Your task to perform on an android device: open app "LinkedIn" (install if not already installed) and enter user name: "dirt@inbox.com" and password: "receptionist" Image 0: 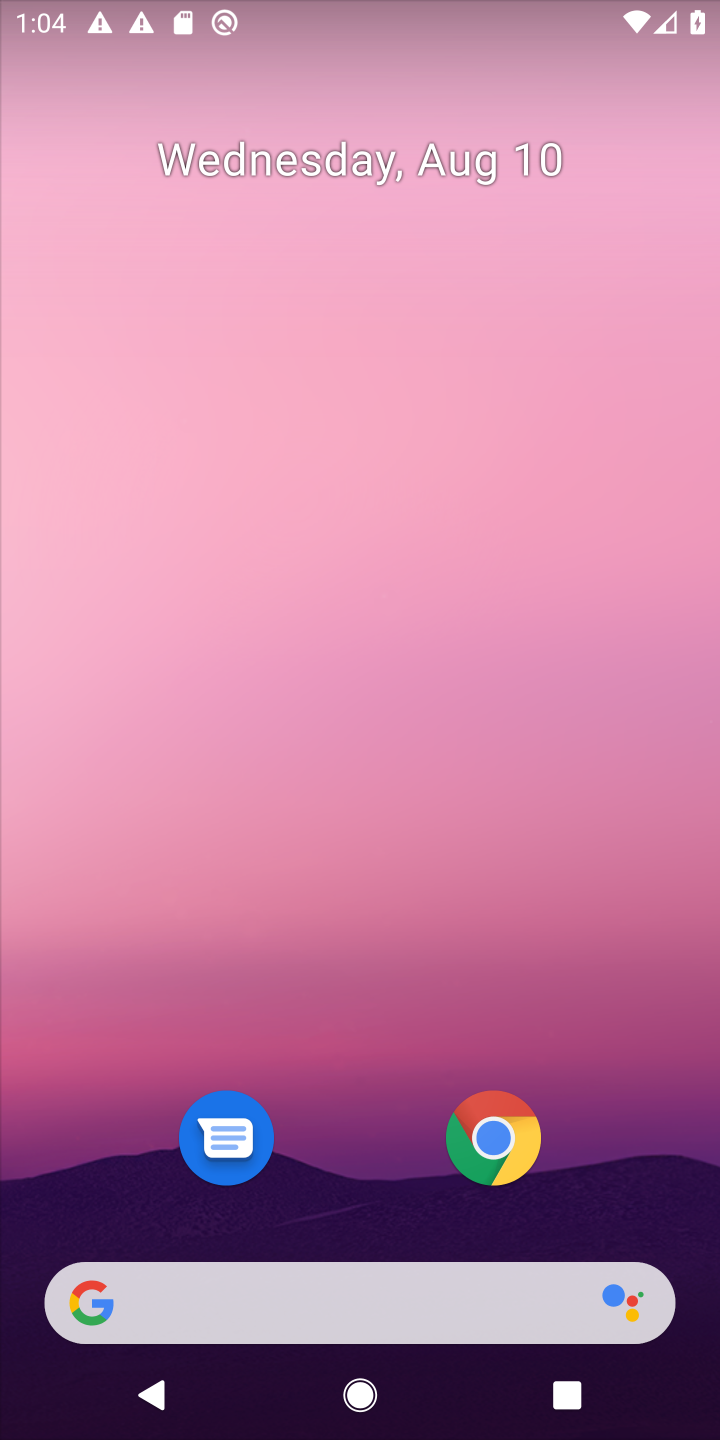
Step 0: drag from (623, 1147) to (620, 54)
Your task to perform on an android device: open app "LinkedIn" (install if not already installed) and enter user name: "dirt@inbox.com" and password: "receptionist" Image 1: 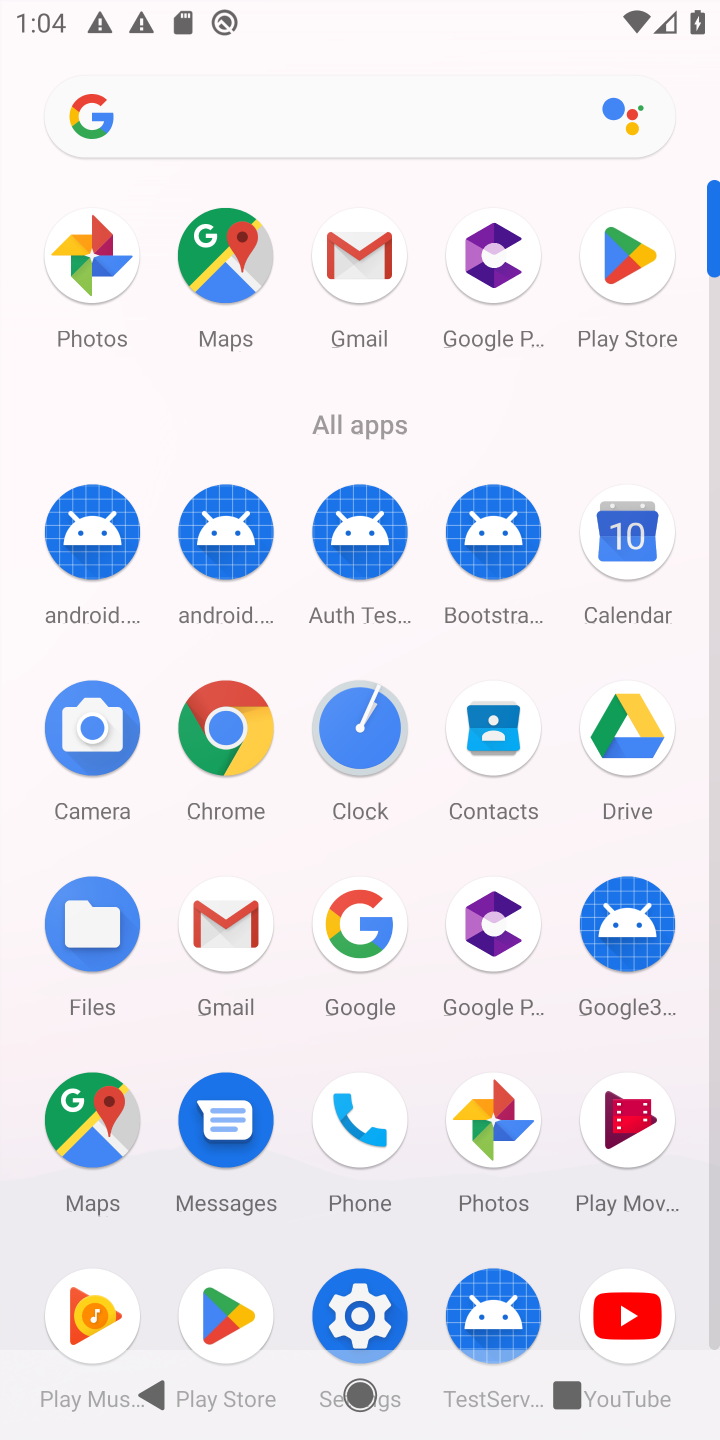
Step 1: click (596, 230)
Your task to perform on an android device: open app "LinkedIn" (install if not already installed) and enter user name: "dirt@inbox.com" and password: "receptionist" Image 2: 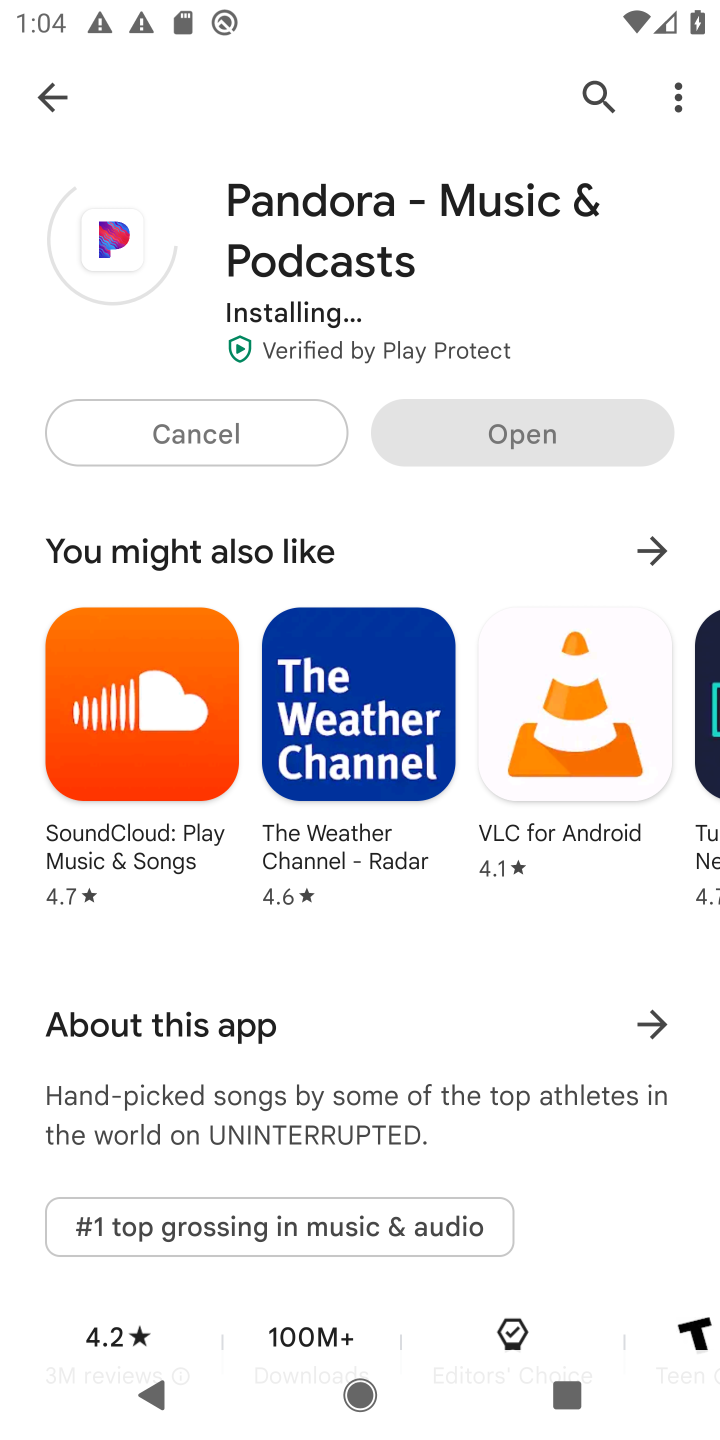
Step 2: click (602, 67)
Your task to perform on an android device: open app "LinkedIn" (install if not already installed) and enter user name: "dirt@inbox.com" and password: "receptionist" Image 3: 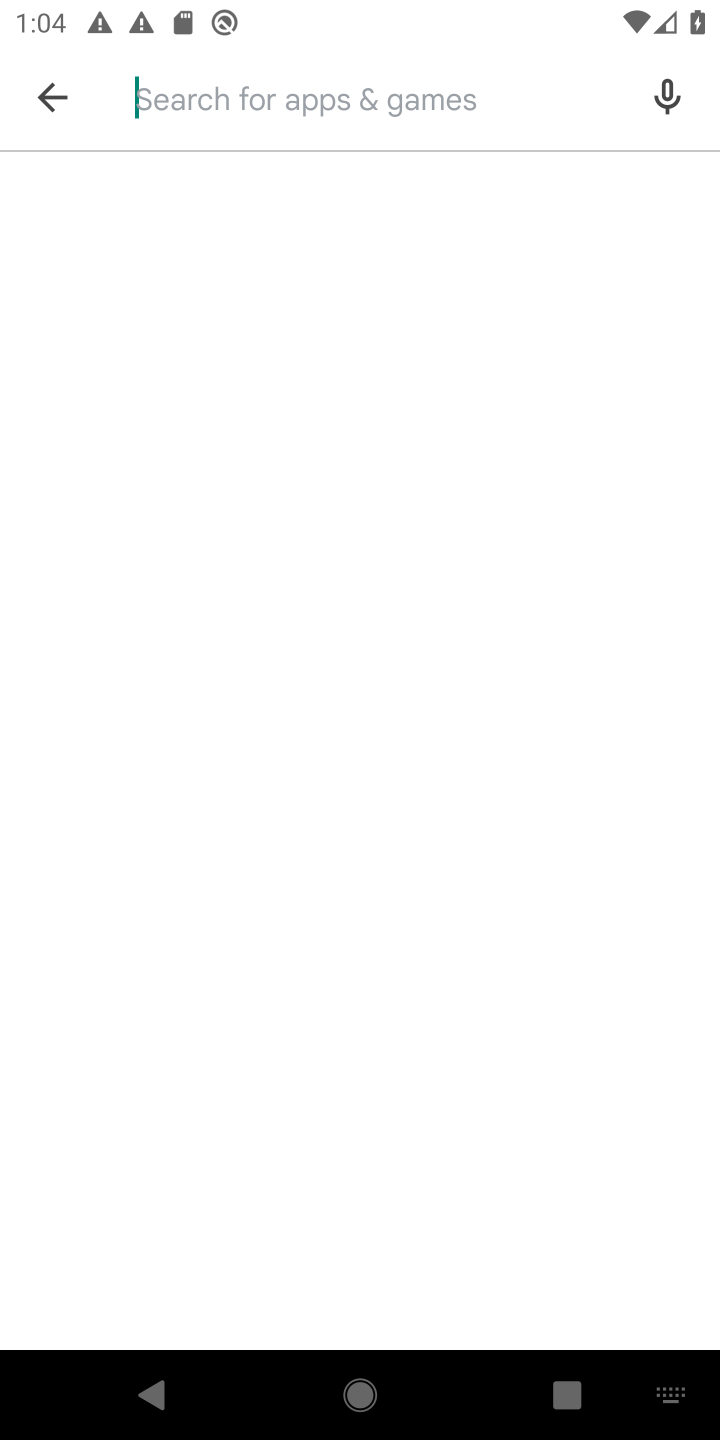
Step 3: click (435, 103)
Your task to perform on an android device: open app "LinkedIn" (install if not already installed) and enter user name: "dirt@inbox.com" and password: "receptionist" Image 4: 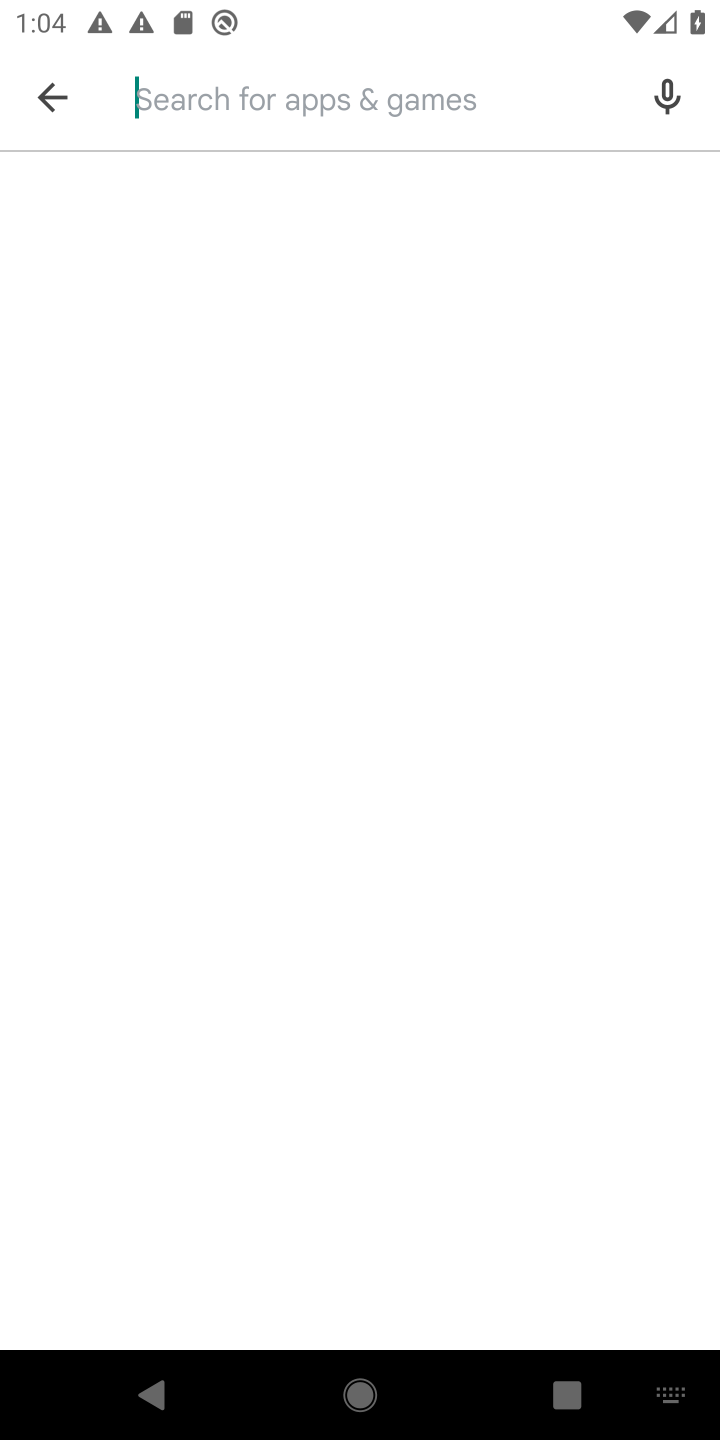
Step 4: type "linkedin"
Your task to perform on an android device: open app "LinkedIn" (install if not already installed) and enter user name: "dirt@inbox.com" and password: "receptionist" Image 5: 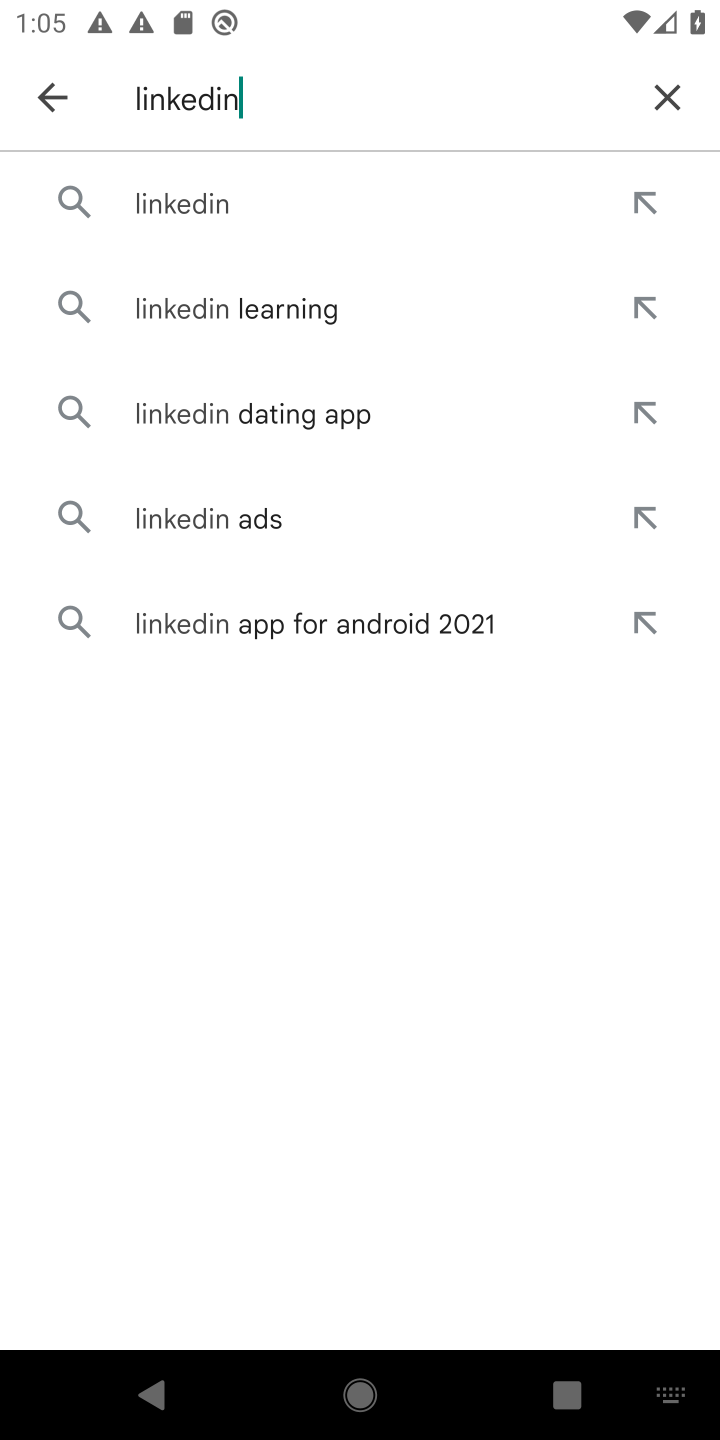
Step 5: click (253, 207)
Your task to perform on an android device: open app "LinkedIn" (install if not already installed) and enter user name: "dirt@inbox.com" and password: "receptionist" Image 6: 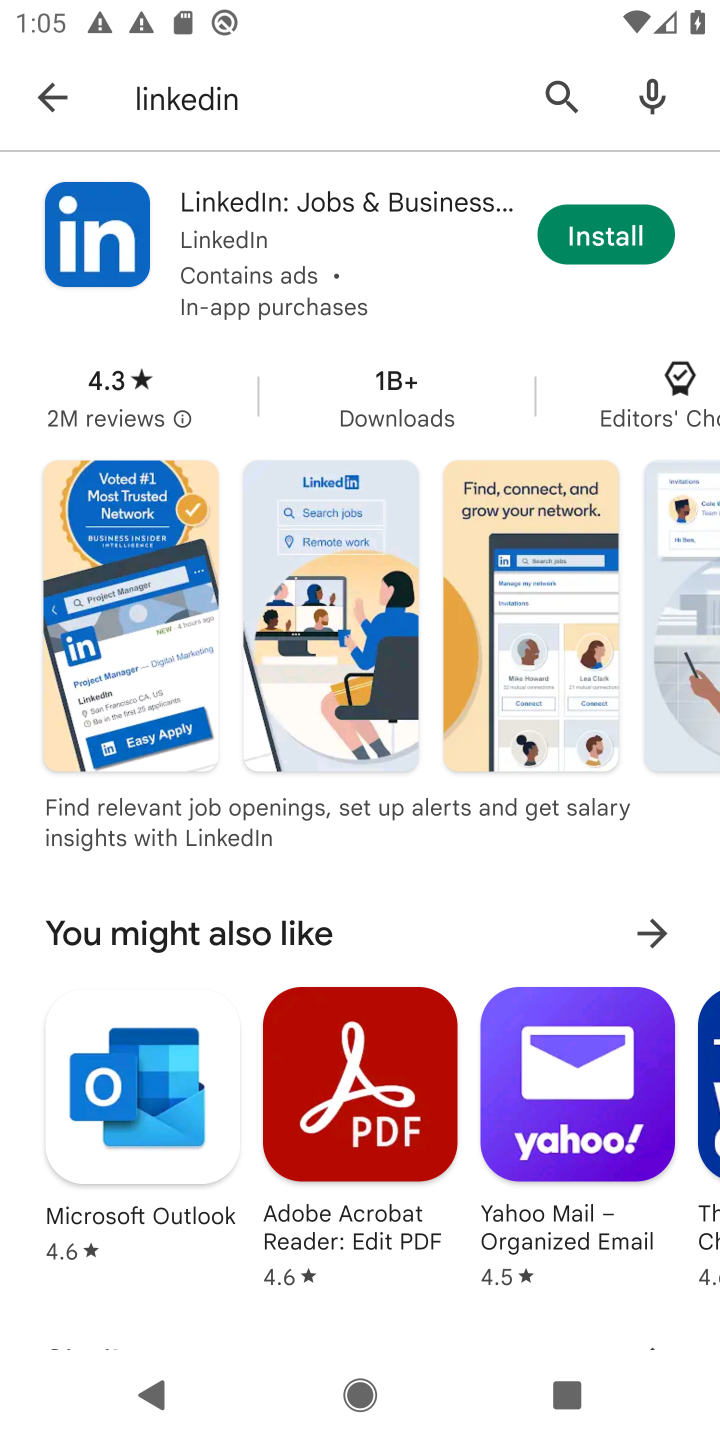
Step 6: click (604, 226)
Your task to perform on an android device: open app "LinkedIn" (install if not already installed) and enter user name: "dirt@inbox.com" and password: "receptionist" Image 7: 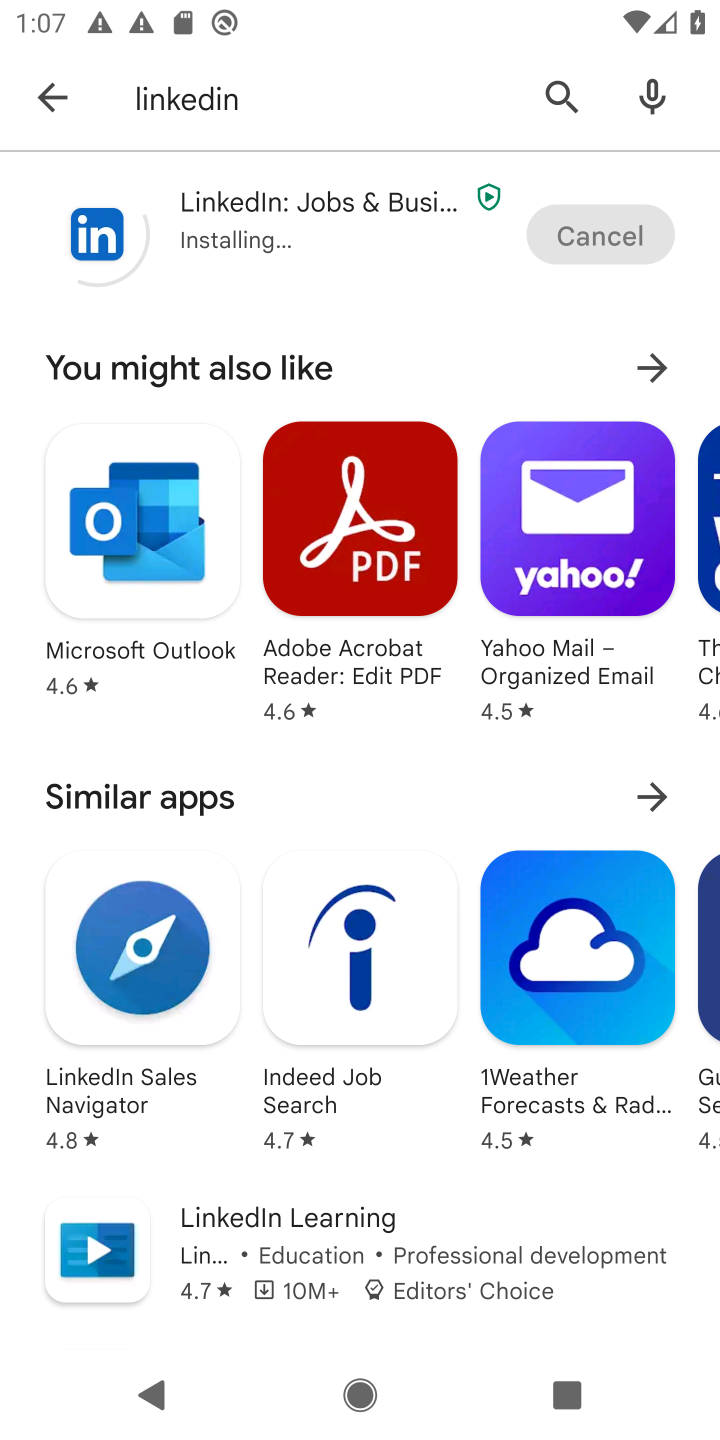
Step 7: task complete